Your task to perform on an android device: Go to privacy settings Image 0: 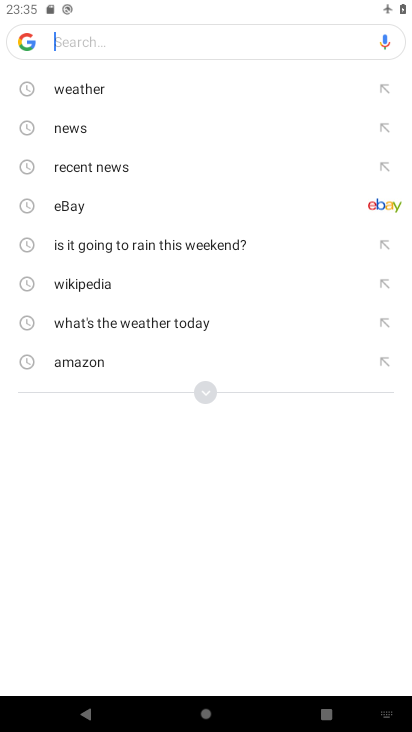
Step 0: press home button
Your task to perform on an android device: Go to privacy settings Image 1: 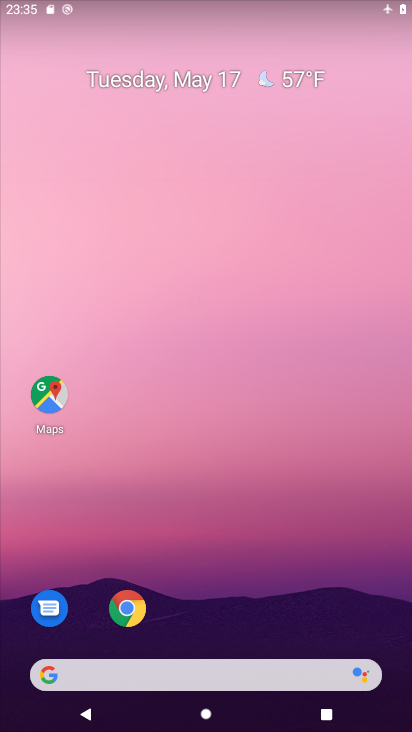
Step 1: drag from (235, 616) to (309, 36)
Your task to perform on an android device: Go to privacy settings Image 2: 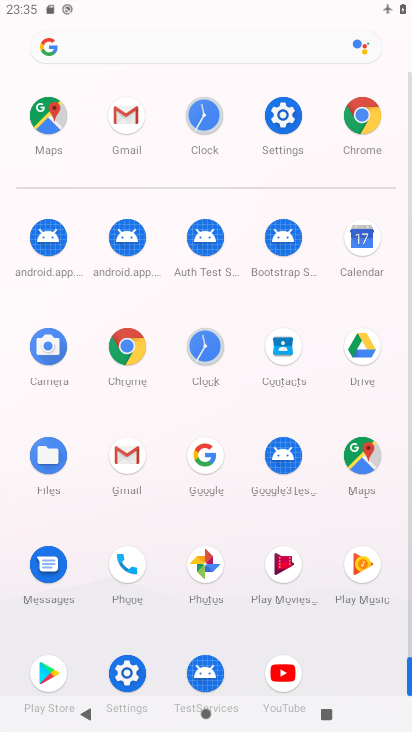
Step 2: click (275, 131)
Your task to perform on an android device: Go to privacy settings Image 3: 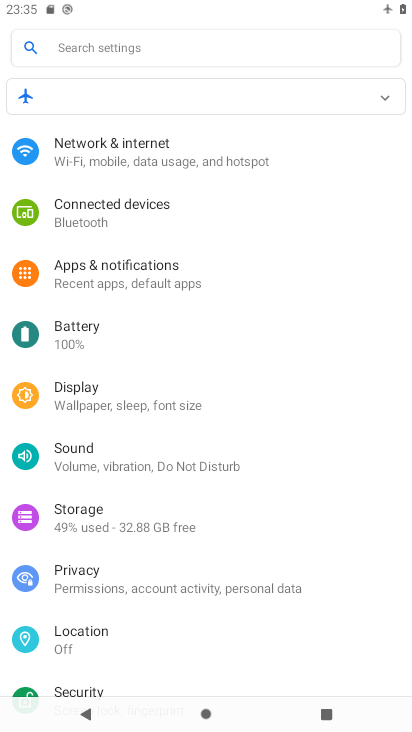
Step 3: click (135, 589)
Your task to perform on an android device: Go to privacy settings Image 4: 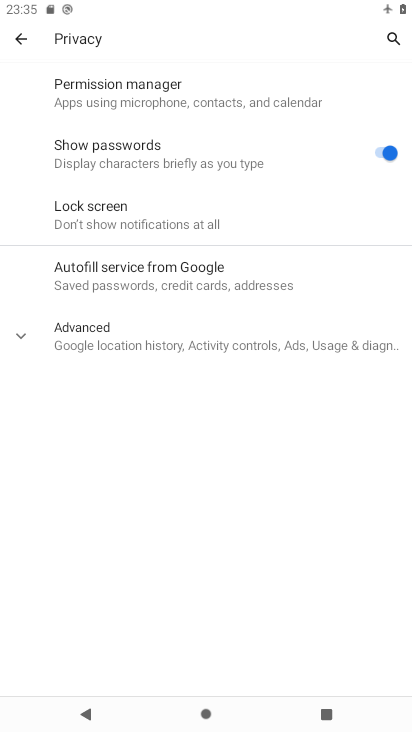
Step 4: task complete